Your task to perform on an android device: create a new album in the google photos Image 0: 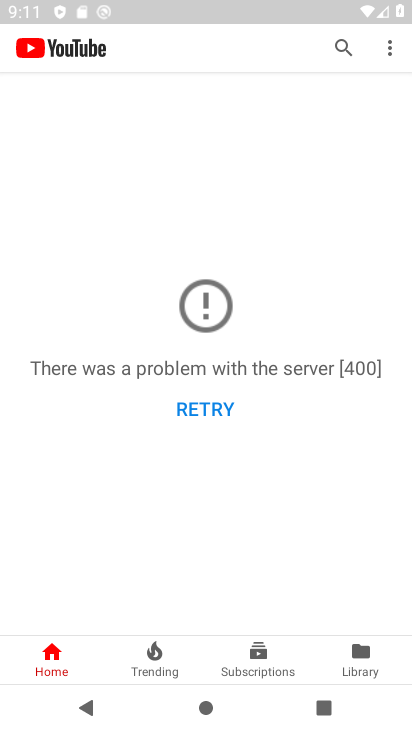
Step 0: press home button
Your task to perform on an android device: create a new album in the google photos Image 1: 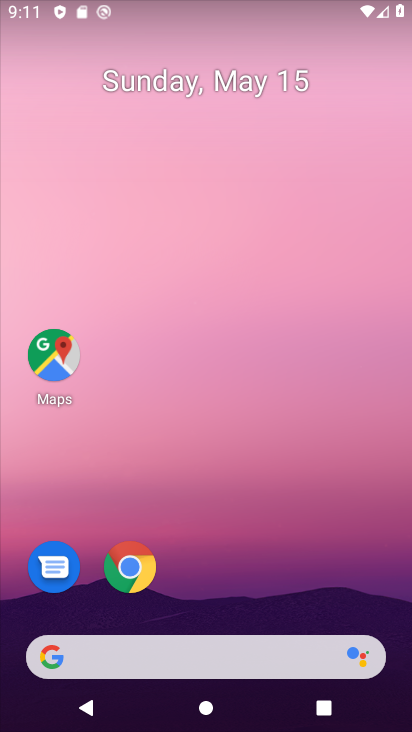
Step 1: drag from (314, 588) to (298, 113)
Your task to perform on an android device: create a new album in the google photos Image 2: 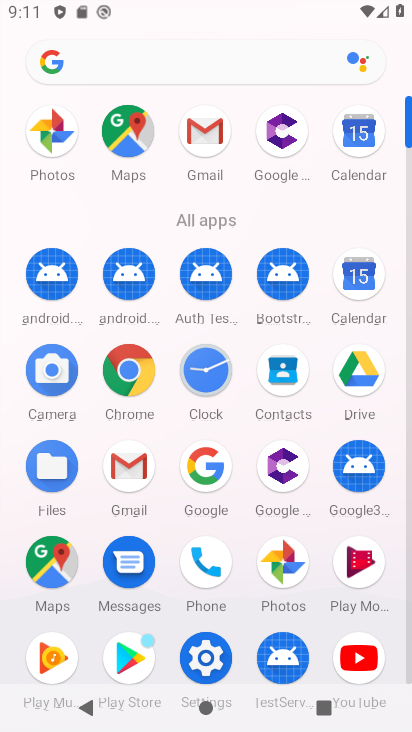
Step 2: click (289, 564)
Your task to perform on an android device: create a new album in the google photos Image 3: 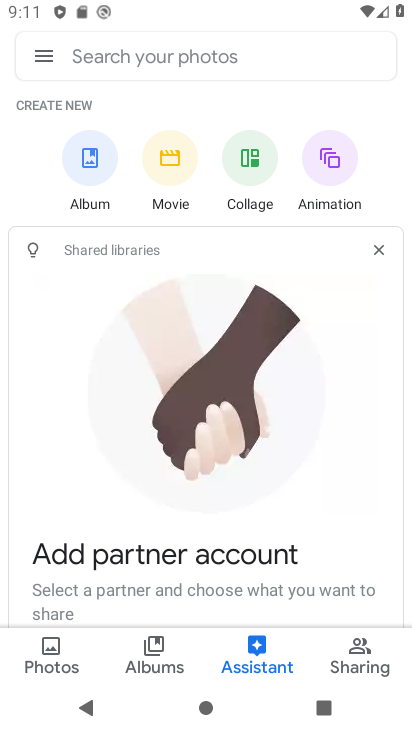
Step 3: click (59, 646)
Your task to perform on an android device: create a new album in the google photos Image 4: 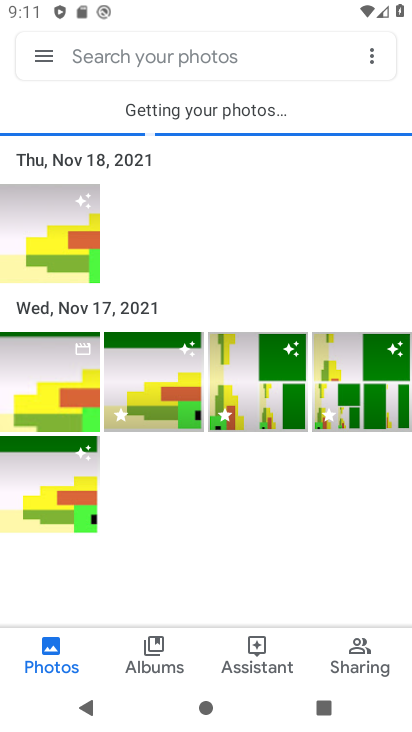
Step 4: click (125, 367)
Your task to perform on an android device: create a new album in the google photos Image 5: 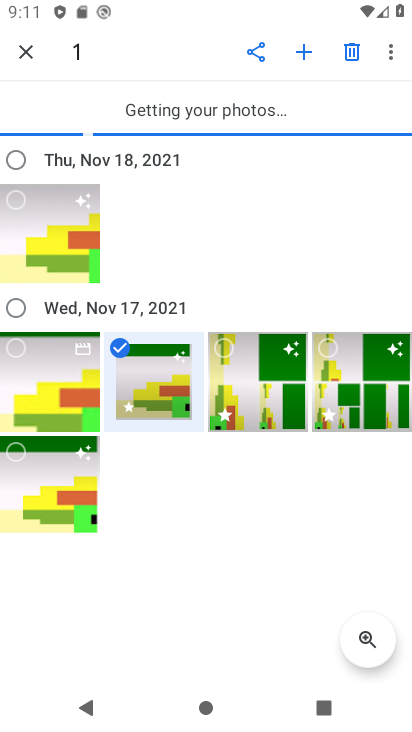
Step 5: click (254, 381)
Your task to perform on an android device: create a new album in the google photos Image 6: 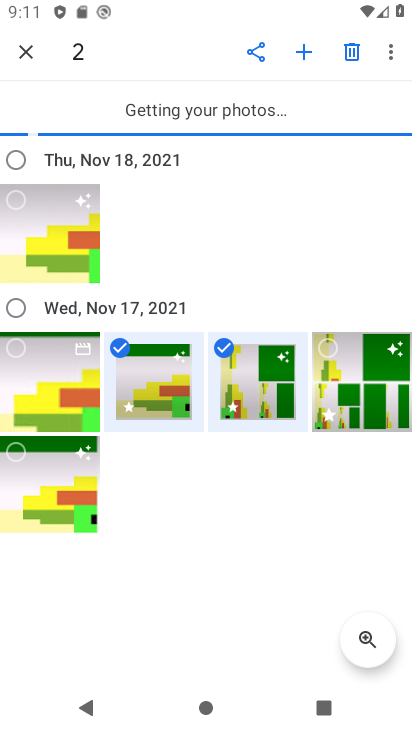
Step 6: click (305, 55)
Your task to perform on an android device: create a new album in the google photos Image 7: 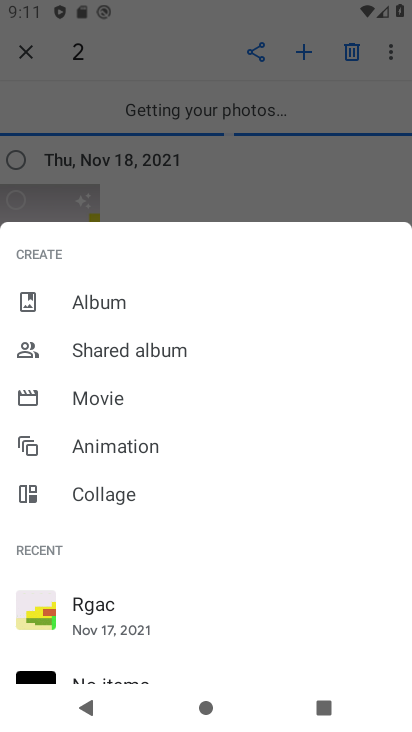
Step 7: click (103, 307)
Your task to perform on an android device: create a new album in the google photos Image 8: 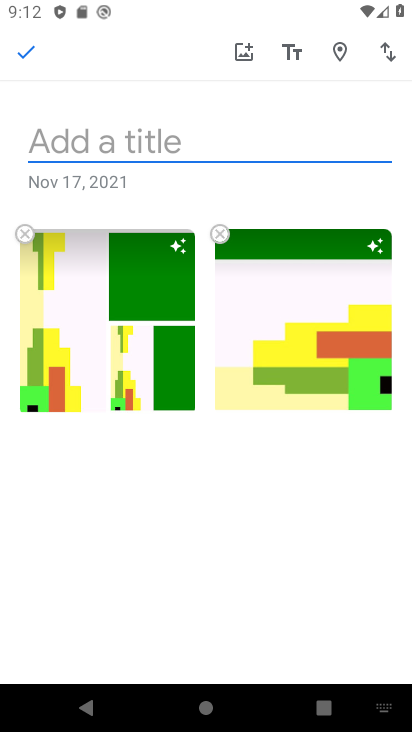
Step 8: type "lp"
Your task to perform on an android device: create a new album in the google photos Image 9: 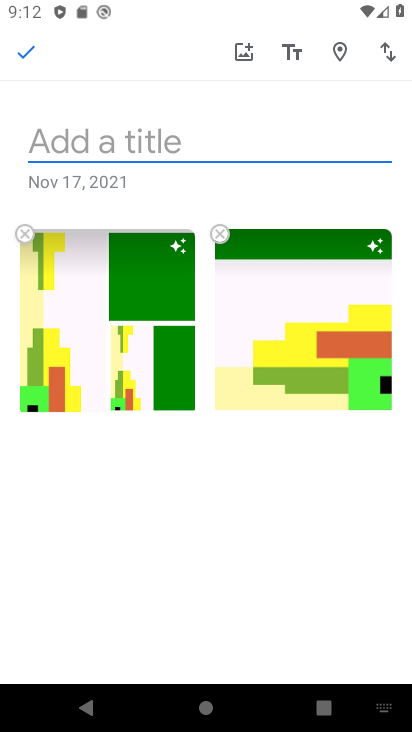
Step 9: click (23, 50)
Your task to perform on an android device: create a new album in the google photos Image 10: 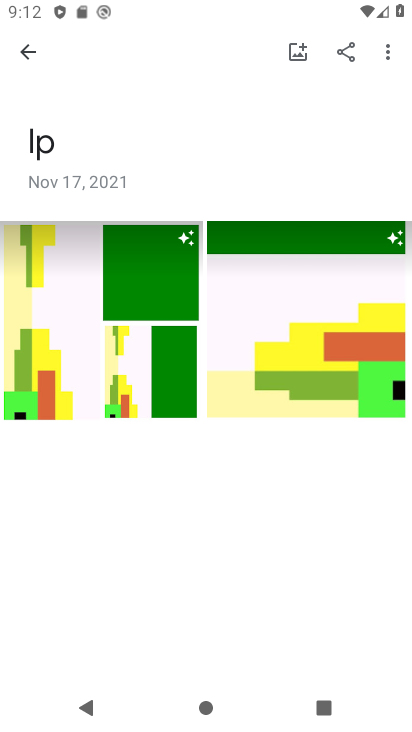
Step 10: task complete